Your task to perform on an android device: turn off data saver in the chrome app Image 0: 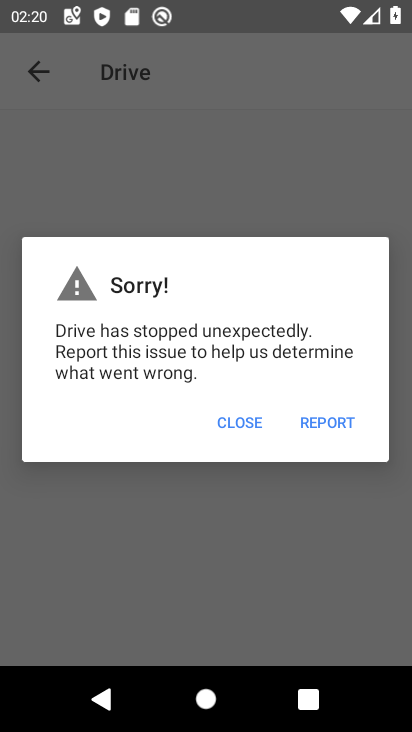
Step 0: press home button
Your task to perform on an android device: turn off data saver in the chrome app Image 1: 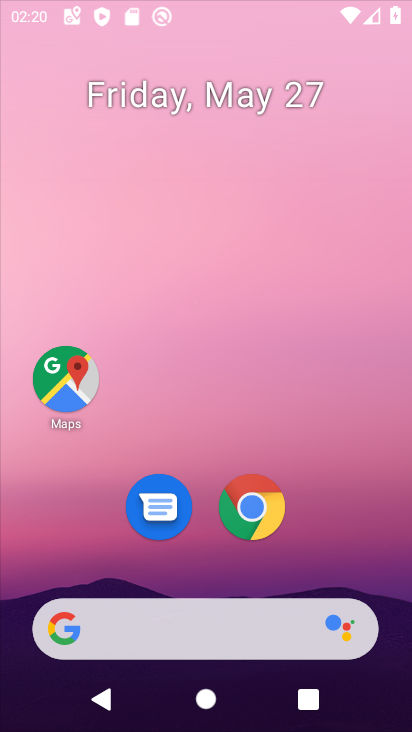
Step 1: drag from (164, 606) to (302, 5)
Your task to perform on an android device: turn off data saver in the chrome app Image 2: 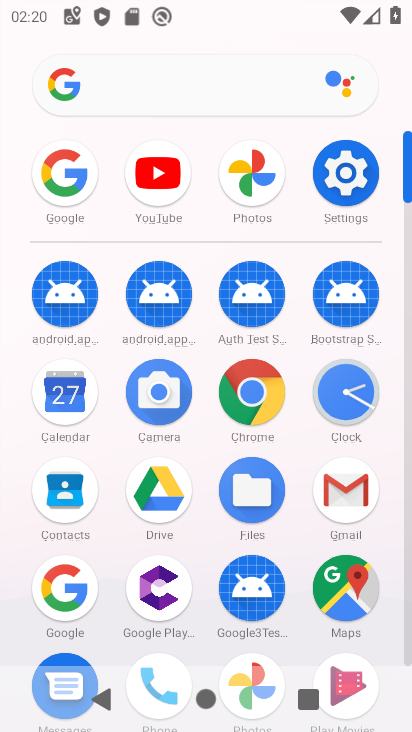
Step 2: click (260, 377)
Your task to perform on an android device: turn off data saver in the chrome app Image 3: 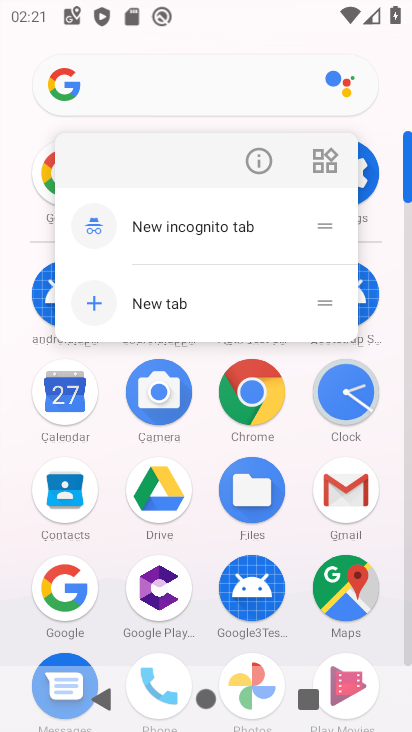
Step 3: click (246, 150)
Your task to perform on an android device: turn off data saver in the chrome app Image 4: 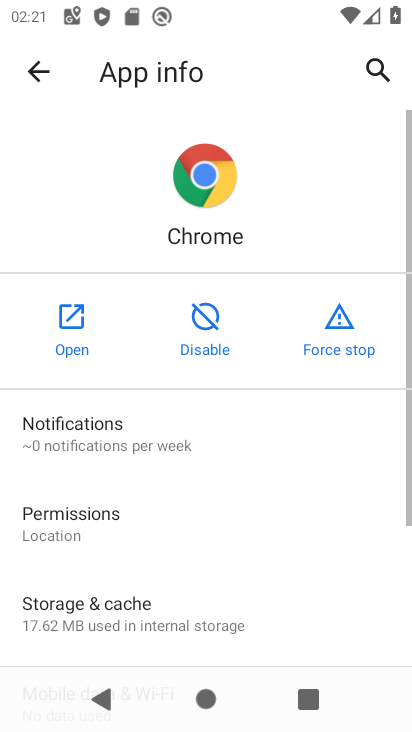
Step 4: click (71, 311)
Your task to perform on an android device: turn off data saver in the chrome app Image 5: 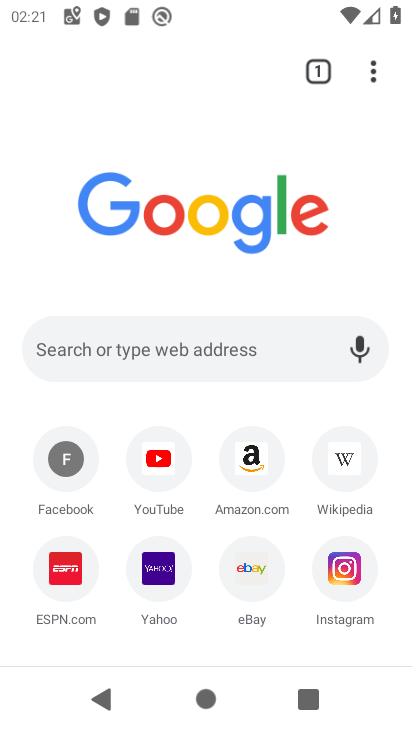
Step 5: drag from (374, 77) to (169, 511)
Your task to perform on an android device: turn off data saver in the chrome app Image 6: 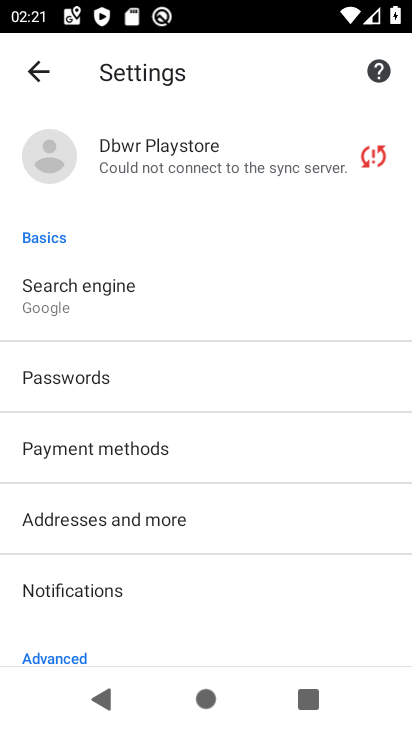
Step 6: drag from (214, 517) to (324, 32)
Your task to perform on an android device: turn off data saver in the chrome app Image 7: 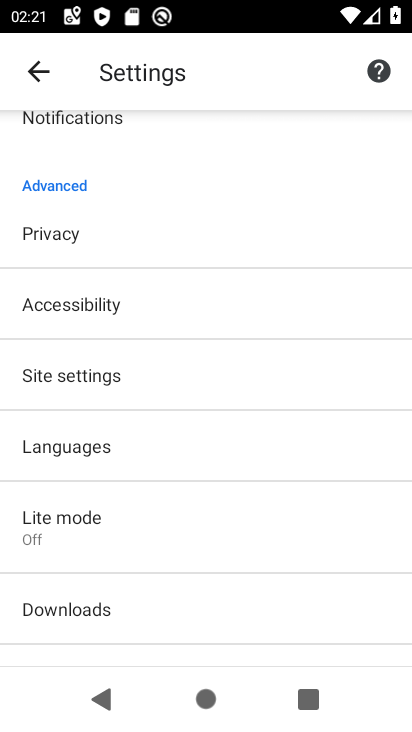
Step 7: click (115, 522)
Your task to perform on an android device: turn off data saver in the chrome app Image 8: 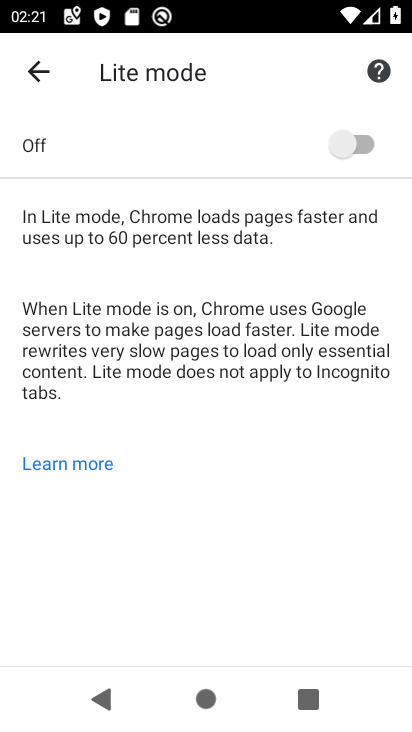
Step 8: task complete